Your task to perform on an android device: uninstall "Nova Launcher" Image 0: 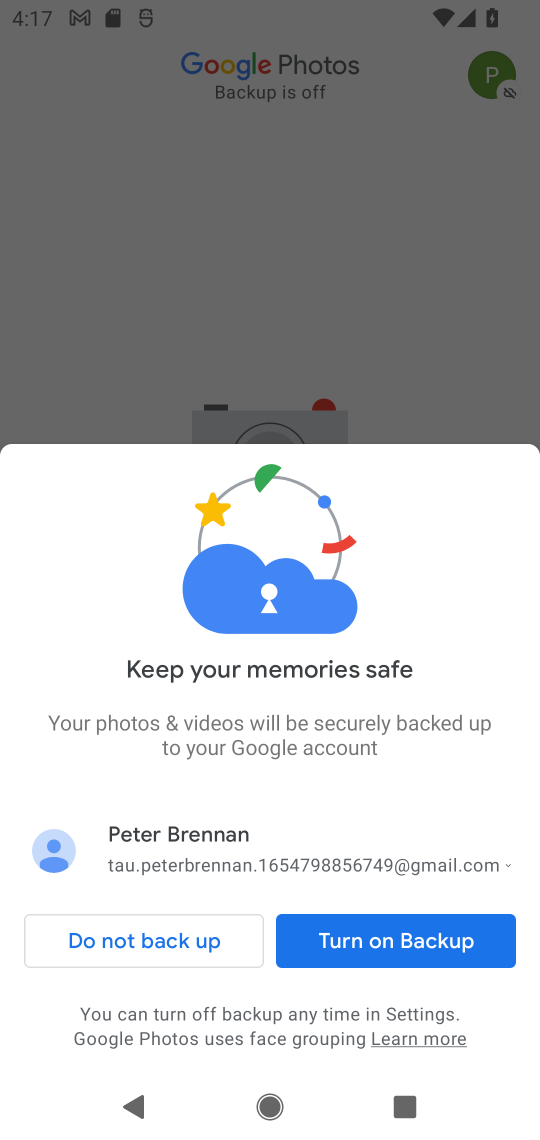
Step 0: press home button
Your task to perform on an android device: uninstall "Nova Launcher" Image 1: 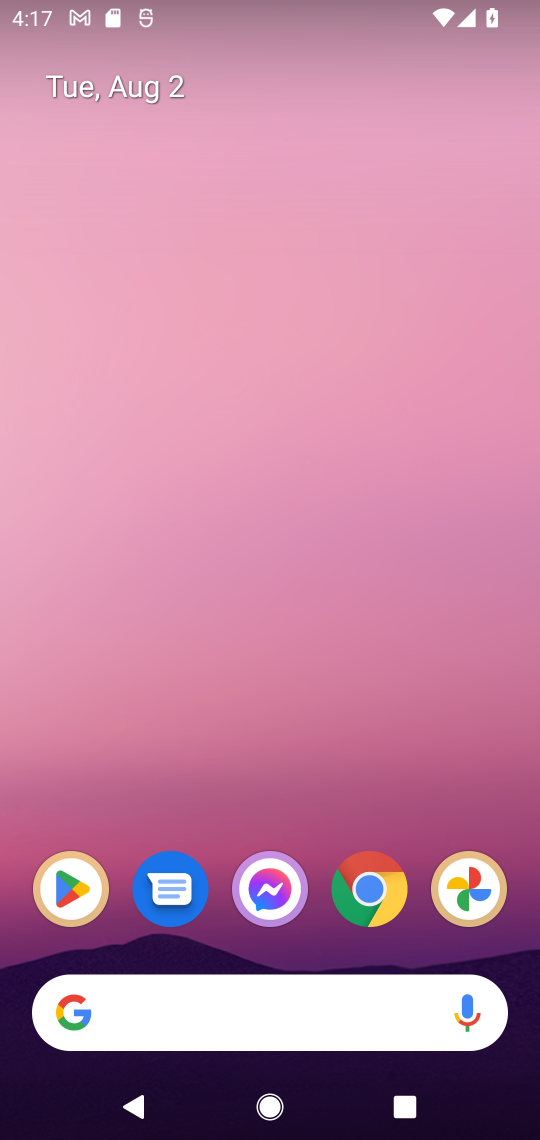
Step 1: drag from (412, 786) to (402, 134)
Your task to perform on an android device: uninstall "Nova Launcher" Image 2: 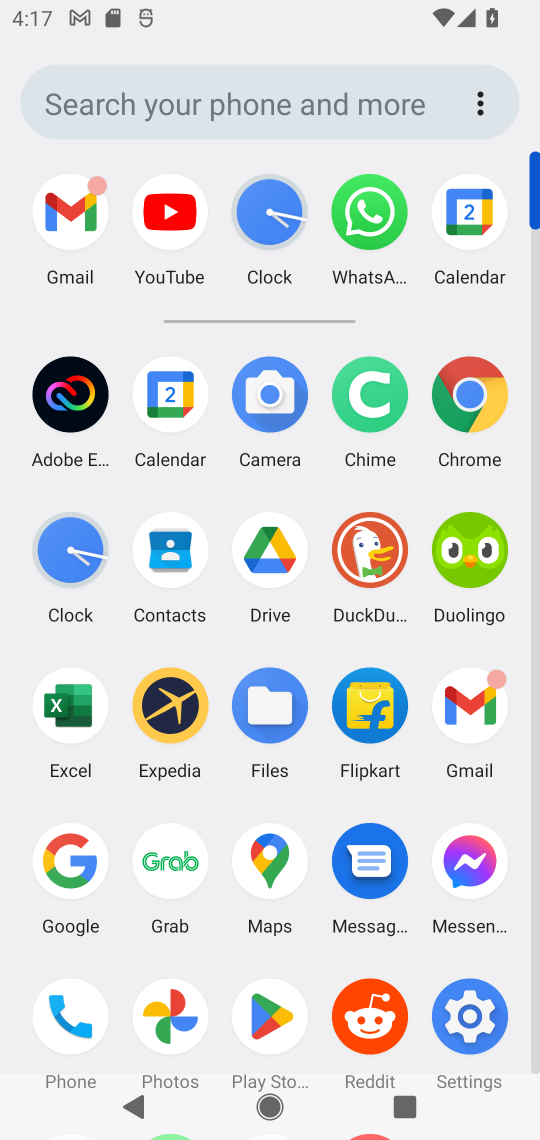
Step 2: click (268, 1025)
Your task to perform on an android device: uninstall "Nova Launcher" Image 3: 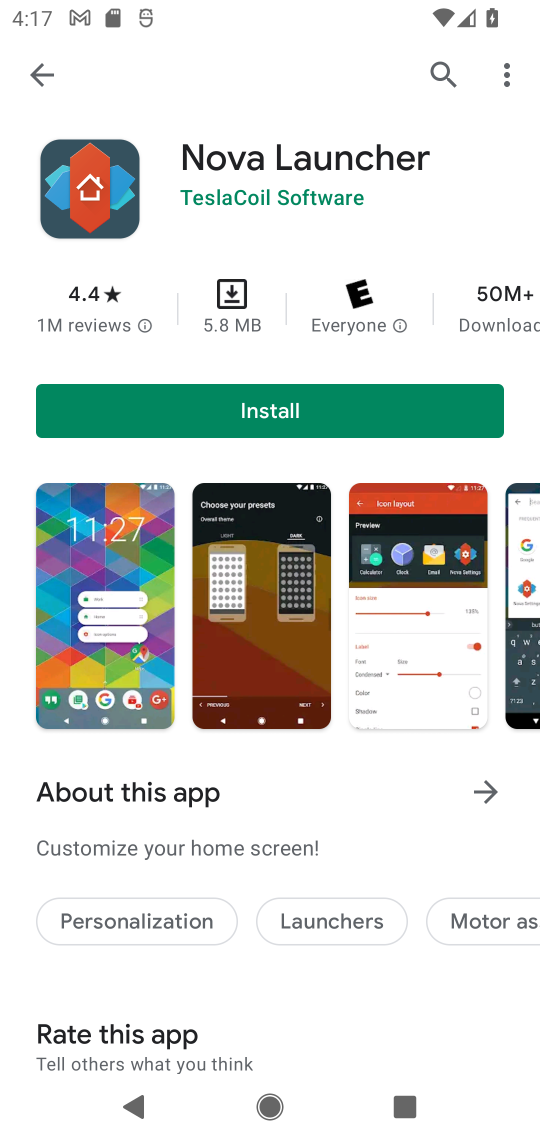
Step 3: task complete